Your task to perform on an android device: toggle show notifications on the lock screen Image 0: 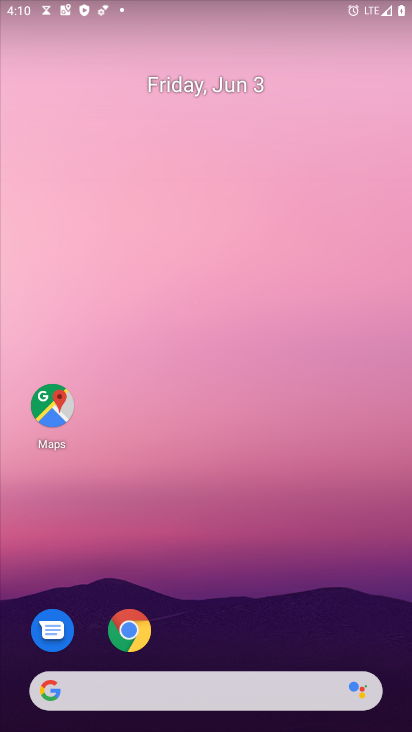
Step 0: drag from (194, 594) to (178, 21)
Your task to perform on an android device: toggle show notifications on the lock screen Image 1: 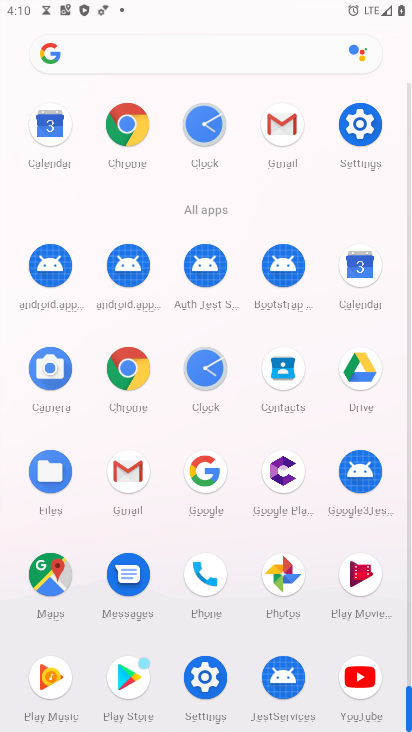
Step 1: drag from (11, 563) to (35, 170)
Your task to perform on an android device: toggle show notifications on the lock screen Image 2: 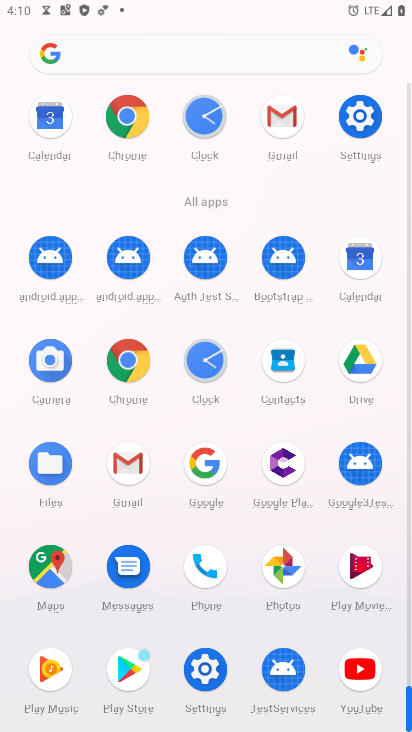
Step 2: click (201, 670)
Your task to perform on an android device: toggle show notifications on the lock screen Image 3: 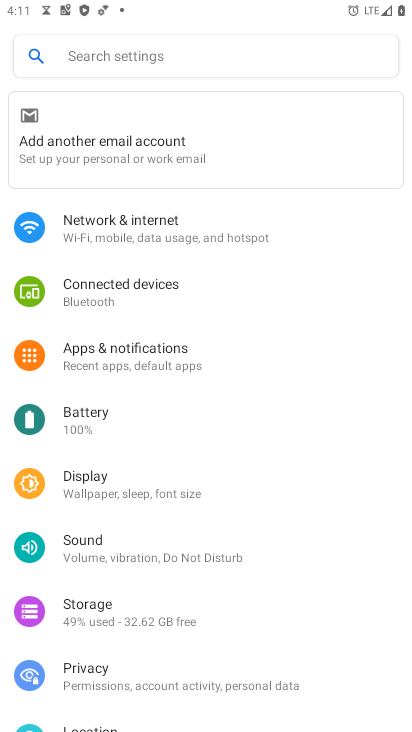
Step 3: click (153, 343)
Your task to perform on an android device: toggle show notifications on the lock screen Image 4: 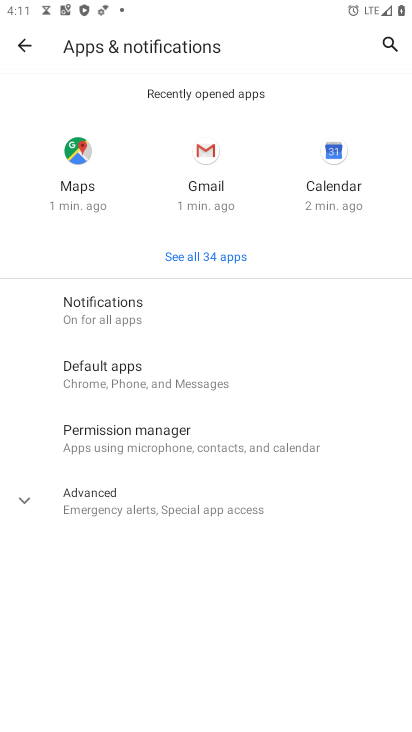
Step 4: click (34, 485)
Your task to perform on an android device: toggle show notifications on the lock screen Image 5: 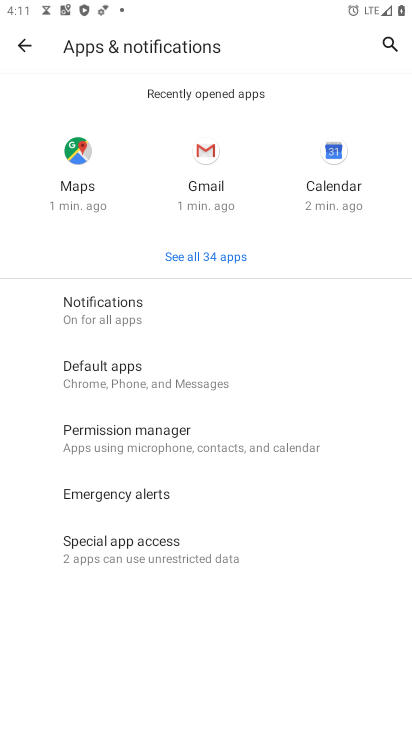
Step 5: click (160, 300)
Your task to perform on an android device: toggle show notifications on the lock screen Image 6: 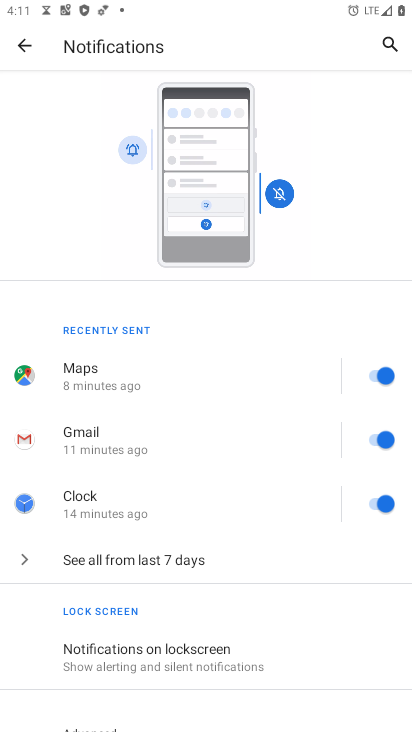
Step 6: drag from (231, 584) to (237, 187)
Your task to perform on an android device: toggle show notifications on the lock screen Image 7: 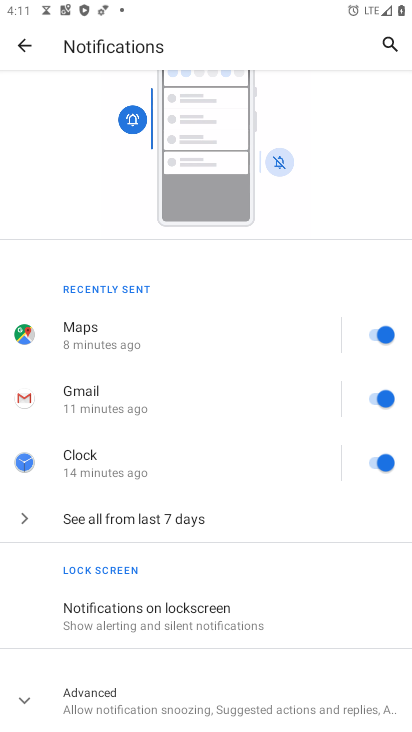
Step 7: click (26, 705)
Your task to perform on an android device: toggle show notifications on the lock screen Image 8: 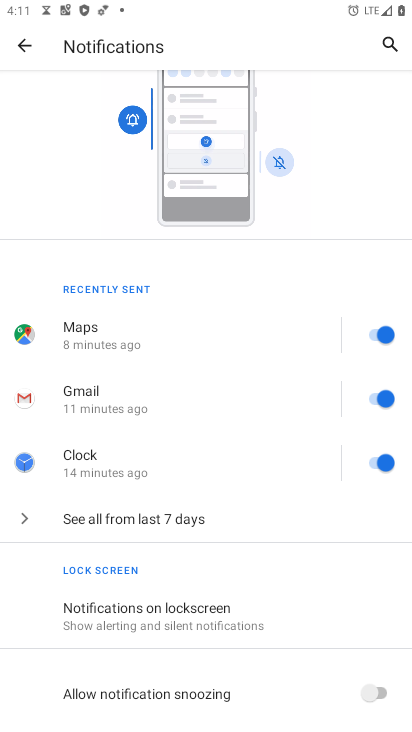
Step 8: drag from (239, 587) to (259, 158)
Your task to perform on an android device: toggle show notifications on the lock screen Image 9: 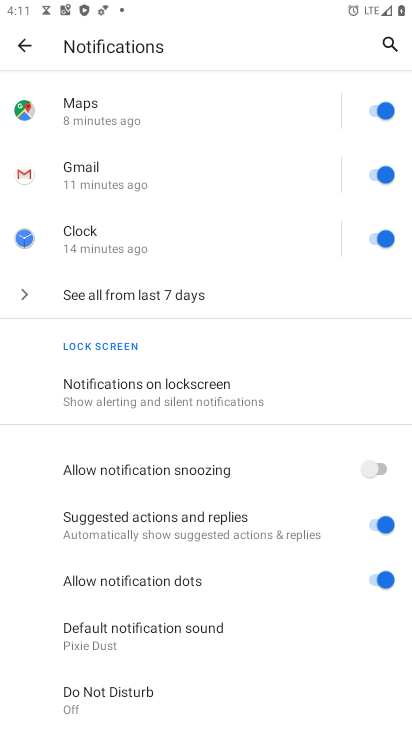
Step 9: click (189, 386)
Your task to perform on an android device: toggle show notifications on the lock screen Image 10: 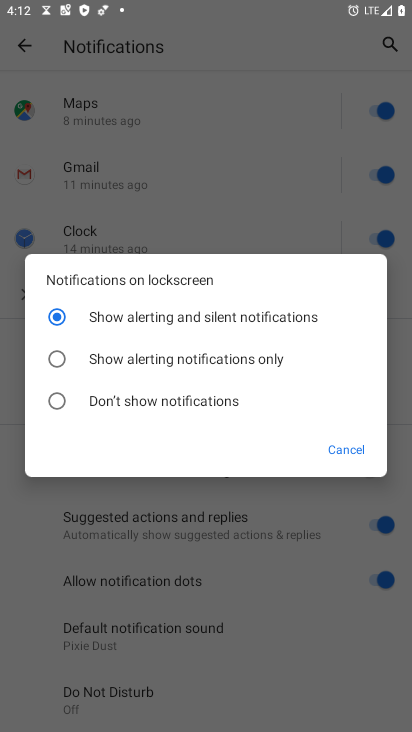
Step 10: click (198, 312)
Your task to perform on an android device: toggle show notifications on the lock screen Image 11: 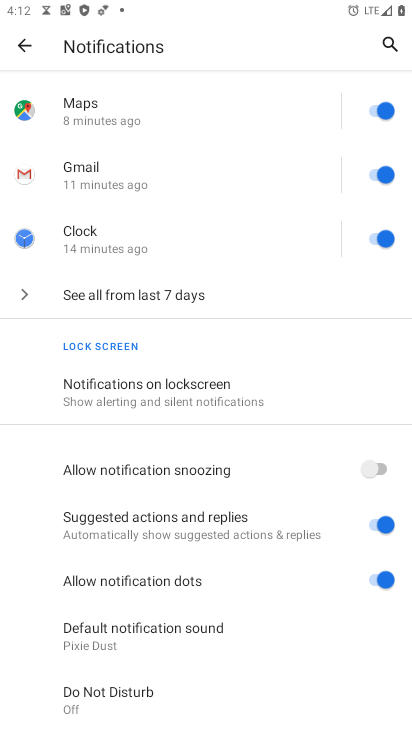
Step 11: task complete